Your task to perform on an android device: Search for "logitech g903" on ebay, select the first entry, add it to the cart, then select checkout. Image 0: 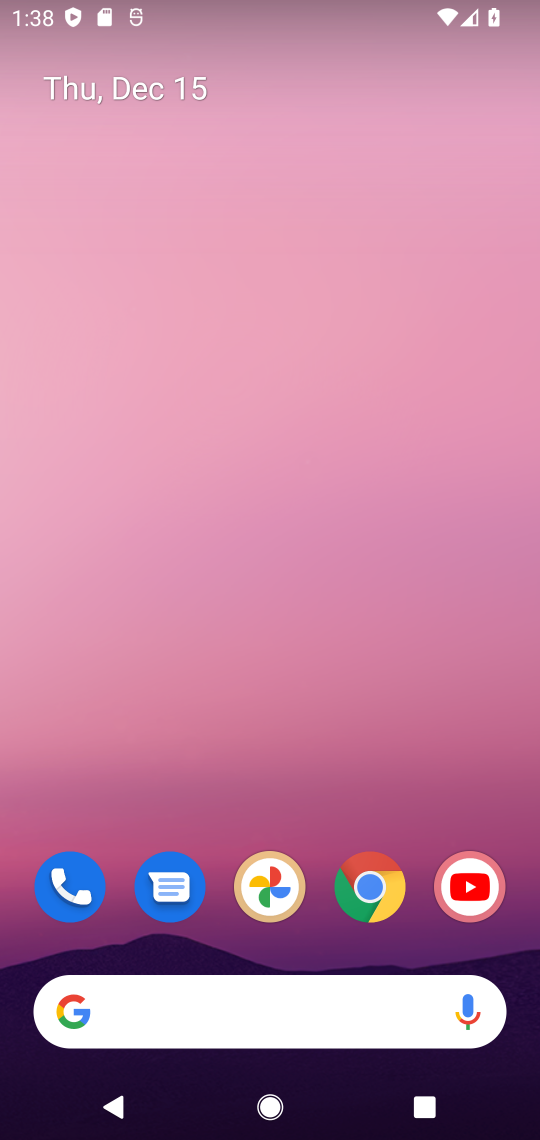
Step 0: click (384, 893)
Your task to perform on an android device: Search for "logitech g903" on ebay, select the first entry, add it to the cart, then select checkout. Image 1: 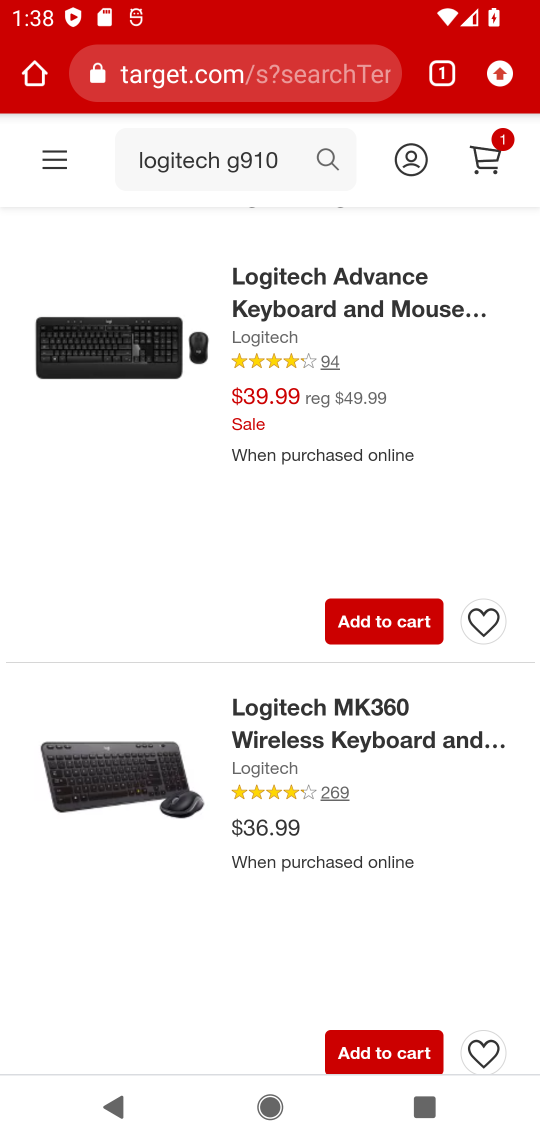
Step 1: click (178, 93)
Your task to perform on an android device: Search for "logitech g903" on ebay, select the first entry, add it to the cart, then select checkout. Image 2: 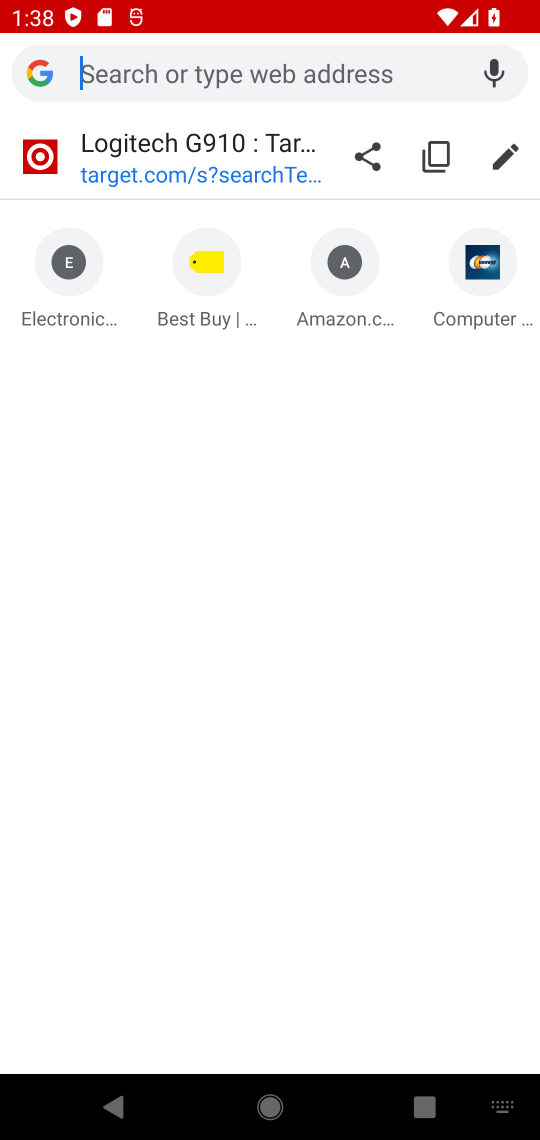
Step 2: type "ebay.com"
Your task to perform on an android device: Search for "logitech g903" on ebay, select the first entry, add it to the cart, then select checkout. Image 3: 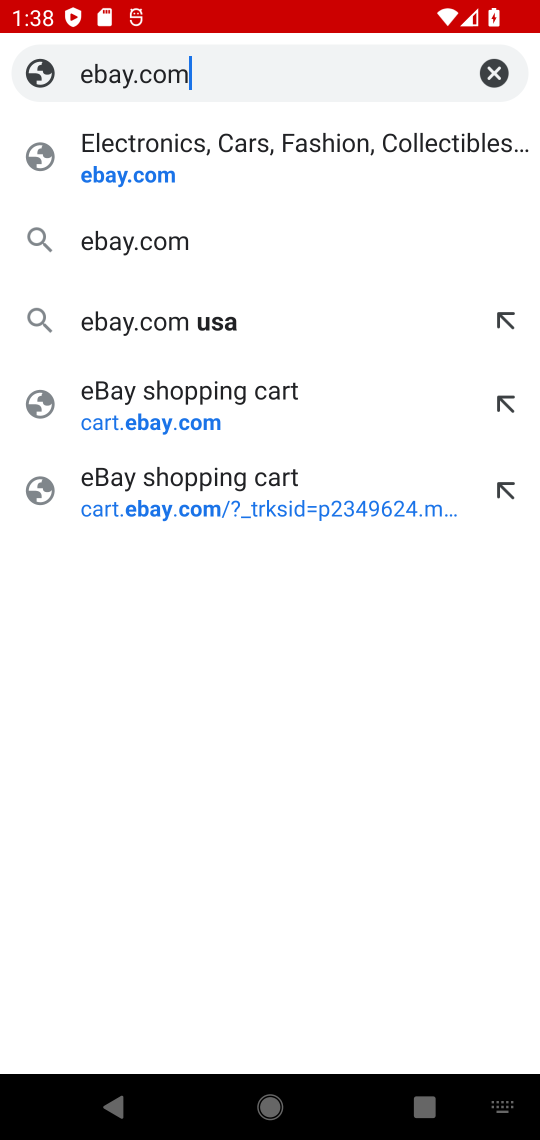
Step 3: click (87, 178)
Your task to perform on an android device: Search for "logitech g903" on ebay, select the first entry, add it to the cart, then select checkout. Image 4: 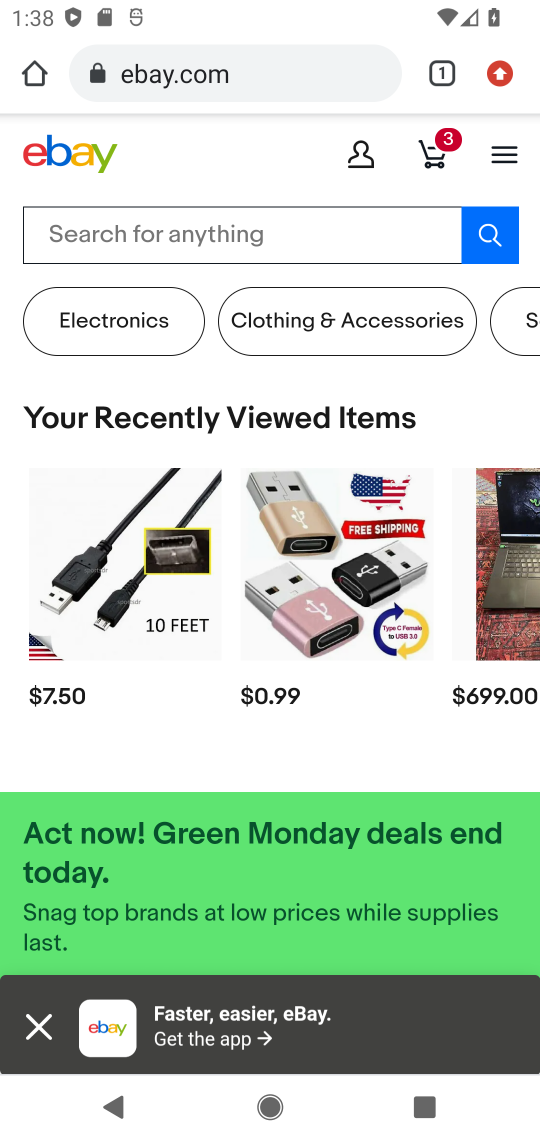
Step 4: click (68, 248)
Your task to perform on an android device: Search for "logitech g903" on ebay, select the first entry, add it to the cart, then select checkout. Image 5: 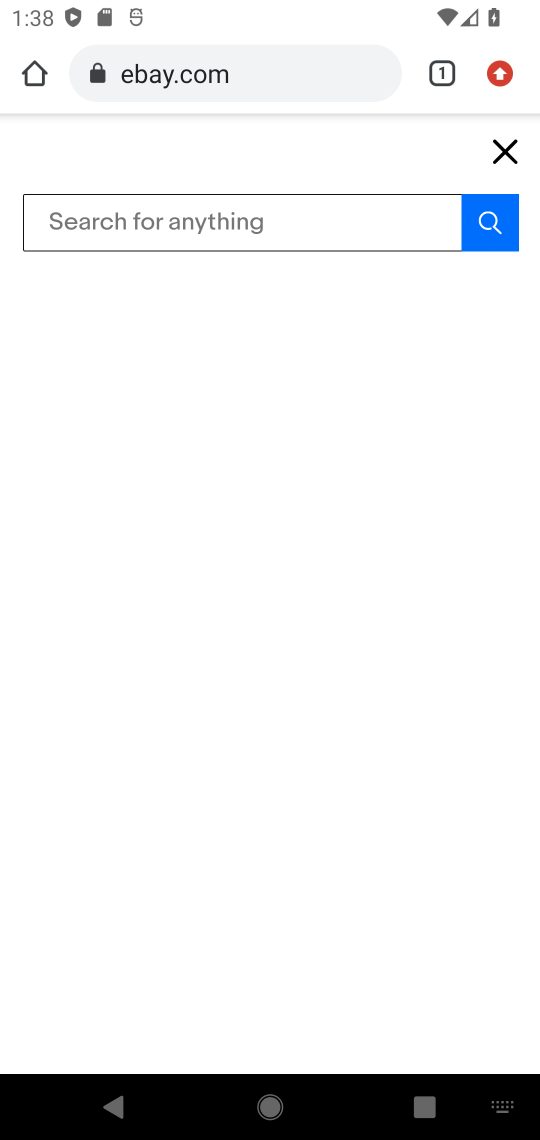
Step 5: type "logitech g903"
Your task to perform on an android device: Search for "logitech g903" on ebay, select the first entry, add it to the cart, then select checkout. Image 6: 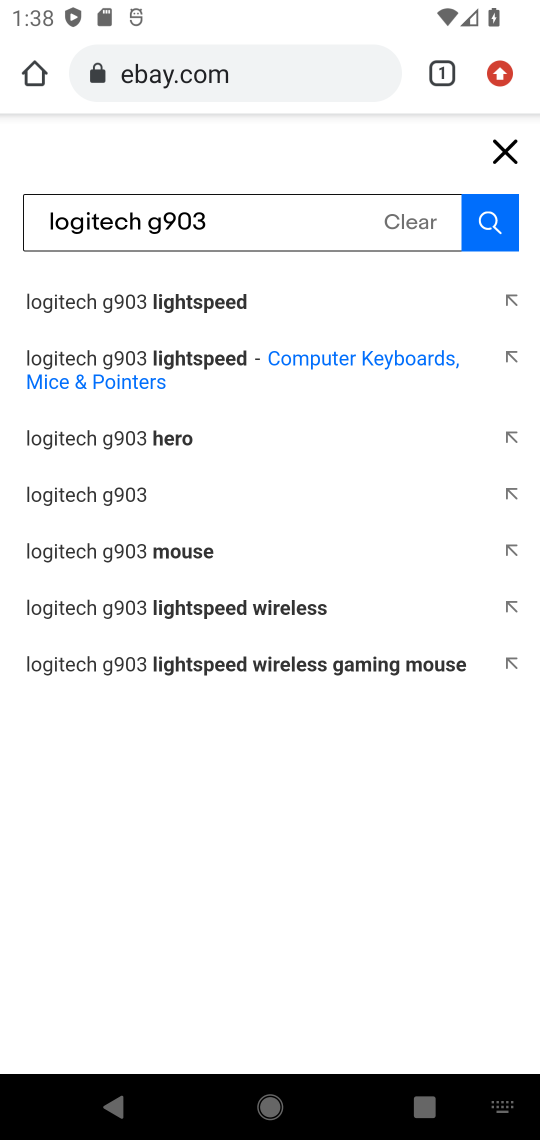
Step 6: click (92, 503)
Your task to perform on an android device: Search for "logitech g903" on ebay, select the first entry, add it to the cart, then select checkout. Image 7: 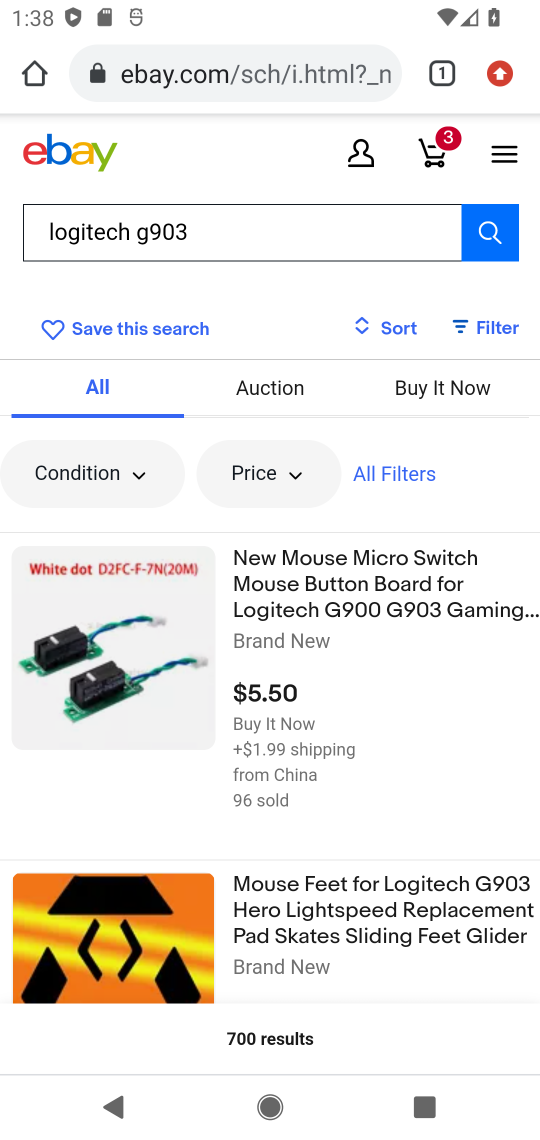
Step 7: click (291, 634)
Your task to perform on an android device: Search for "logitech g903" on ebay, select the first entry, add it to the cart, then select checkout. Image 8: 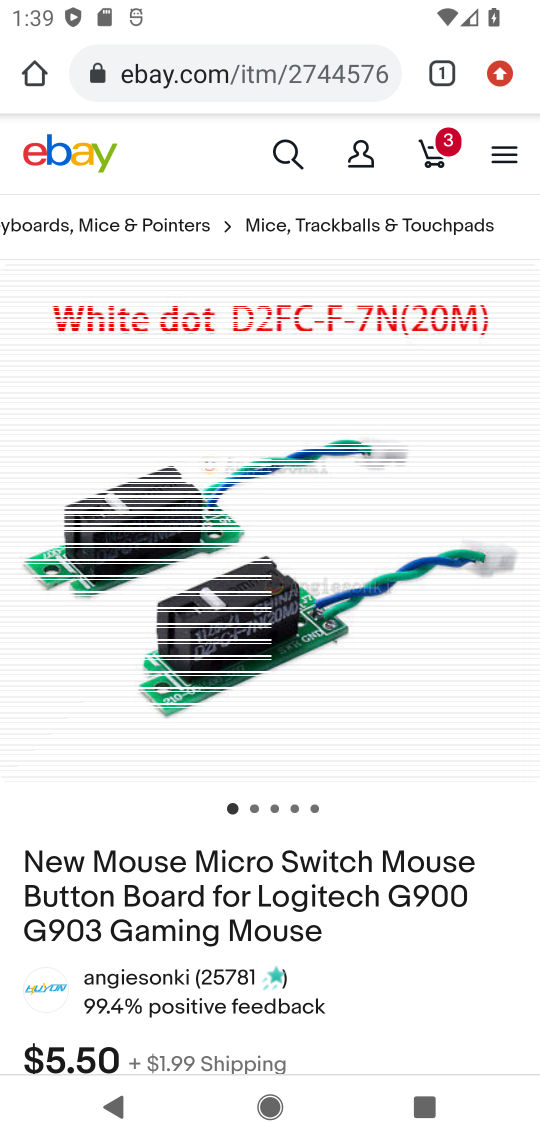
Step 8: drag from (302, 819) to (276, 337)
Your task to perform on an android device: Search for "logitech g903" on ebay, select the first entry, add it to the cart, then select checkout. Image 9: 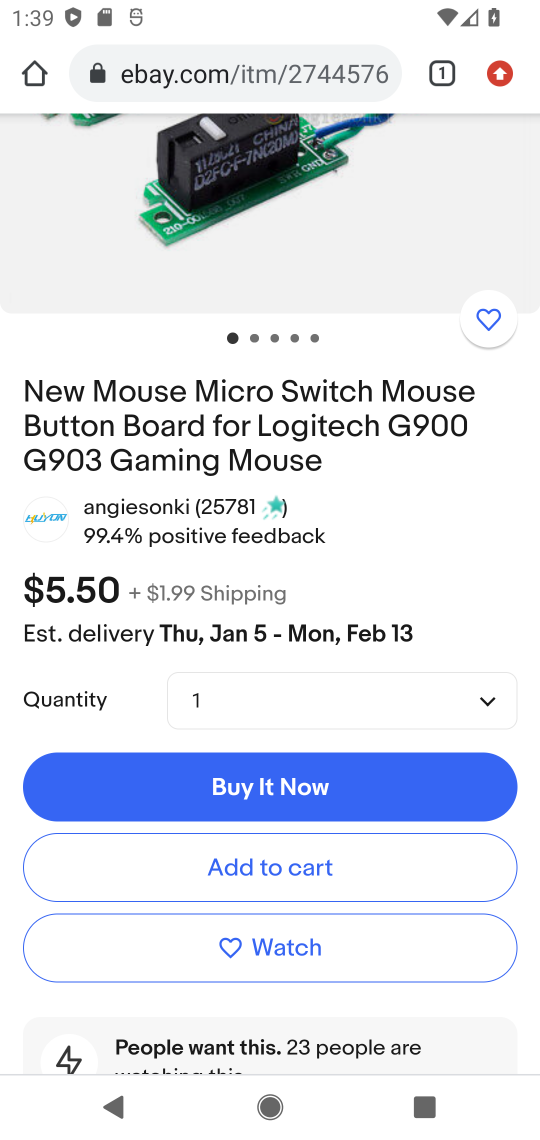
Step 9: click (265, 862)
Your task to perform on an android device: Search for "logitech g903" on ebay, select the first entry, add it to the cart, then select checkout. Image 10: 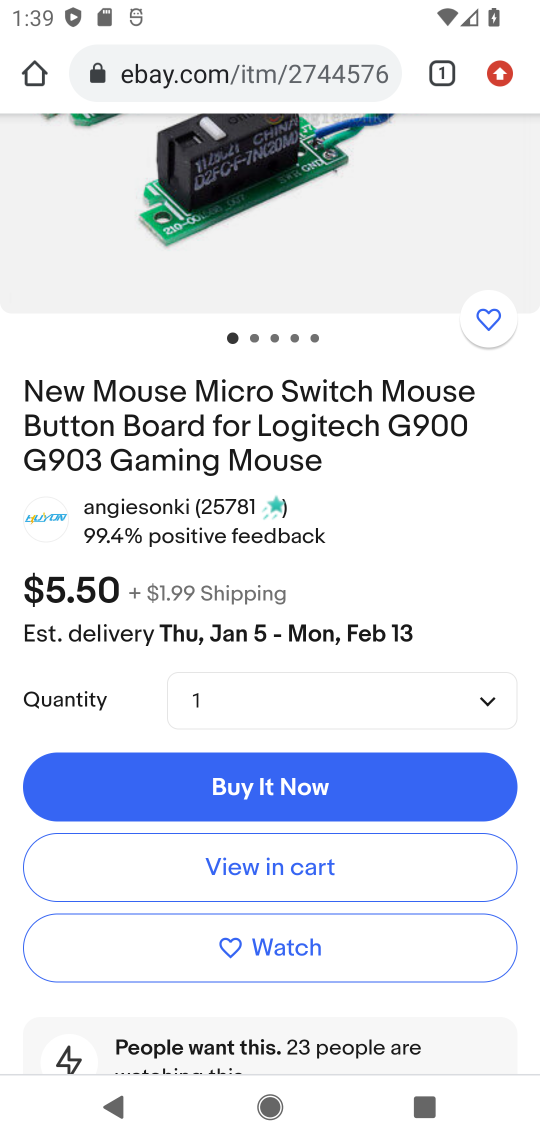
Step 10: click (265, 862)
Your task to perform on an android device: Search for "logitech g903" on ebay, select the first entry, add it to the cart, then select checkout. Image 11: 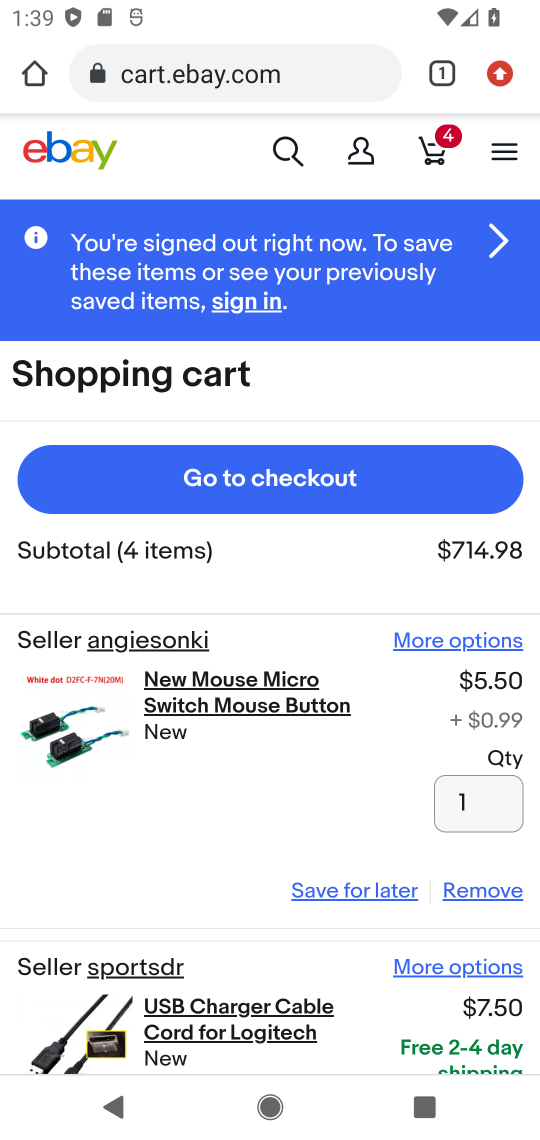
Step 11: click (255, 476)
Your task to perform on an android device: Search for "logitech g903" on ebay, select the first entry, add it to the cart, then select checkout. Image 12: 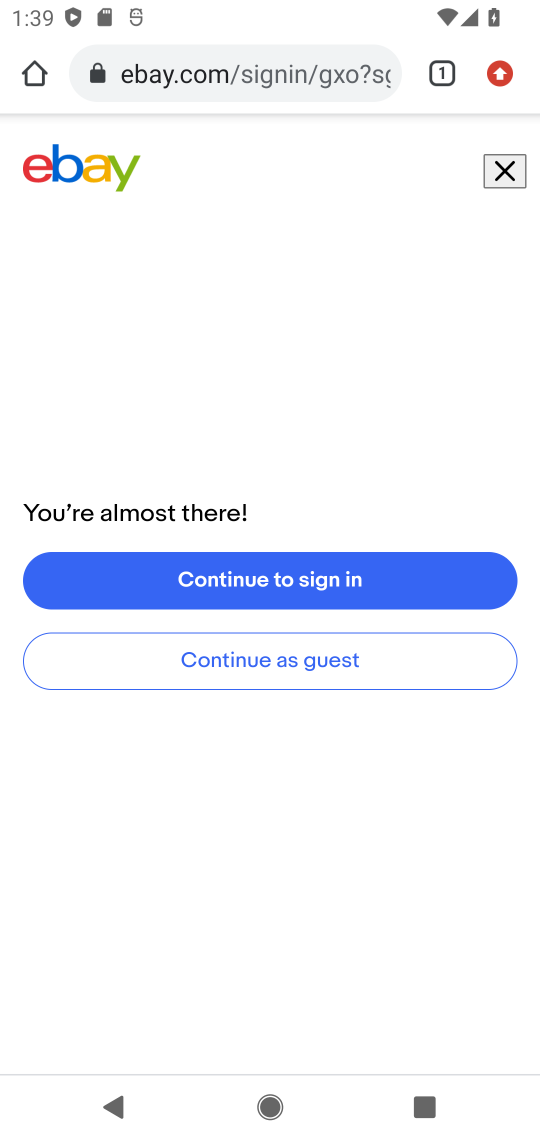
Step 12: task complete